Your task to perform on an android device: empty trash in google photos Image 0: 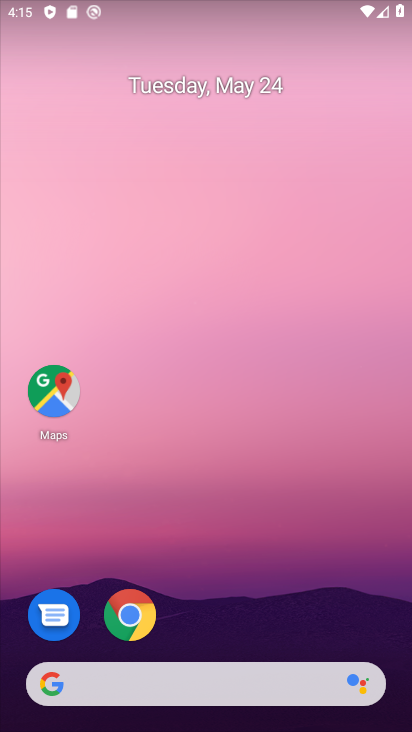
Step 0: drag from (236, 627) to (146, 71)
Your task to perform on an android device: empty trash in google photos Image 1: 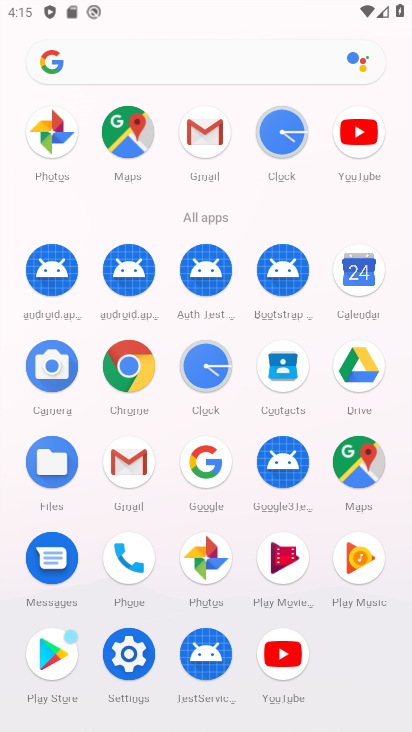
Step 1: click (43, 139)
Your task to perform on an android device: empty trash in google photos Image 2: 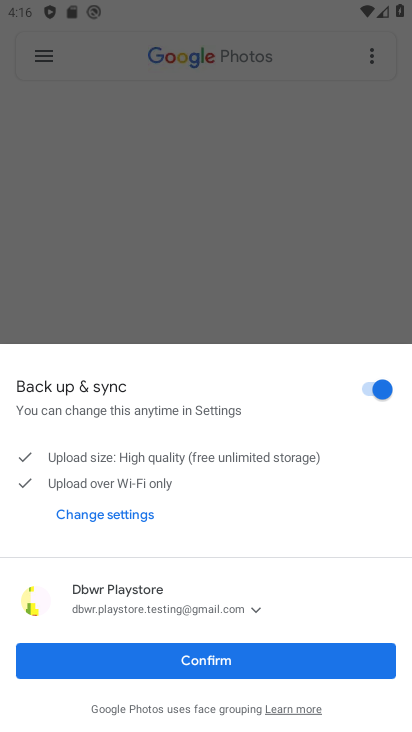
Step 2: click (181, 654)
Your task to perform on an android device: empty trash in google photos Image 3: 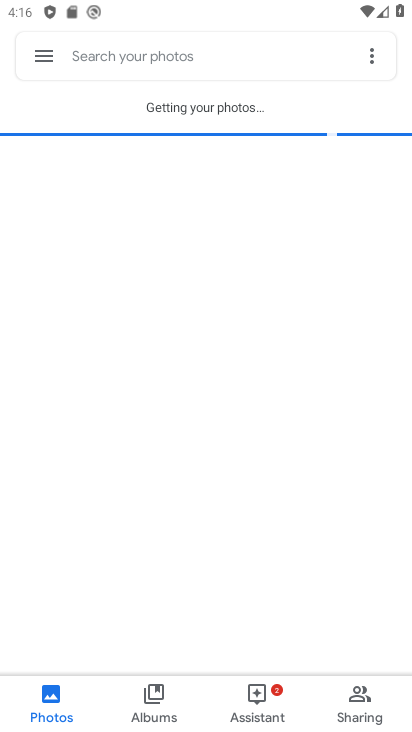
Step 3: click (49, 63)
Your task to perform on an android device: empty trash in google photos Image 4: 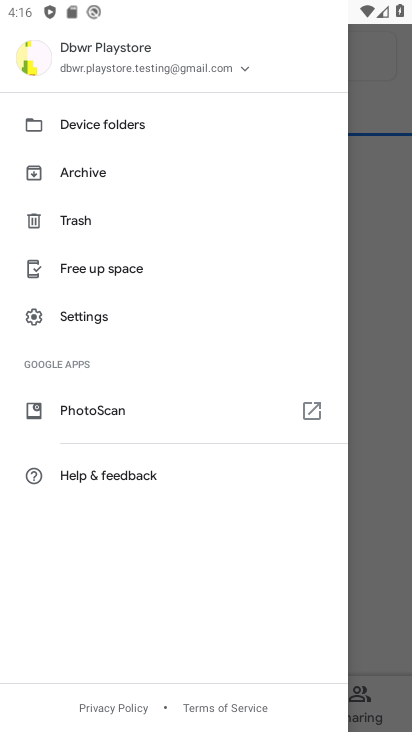
Step 4: click (98, 229)
Your task to perform on an android device: empty trash in google photos Image 5: 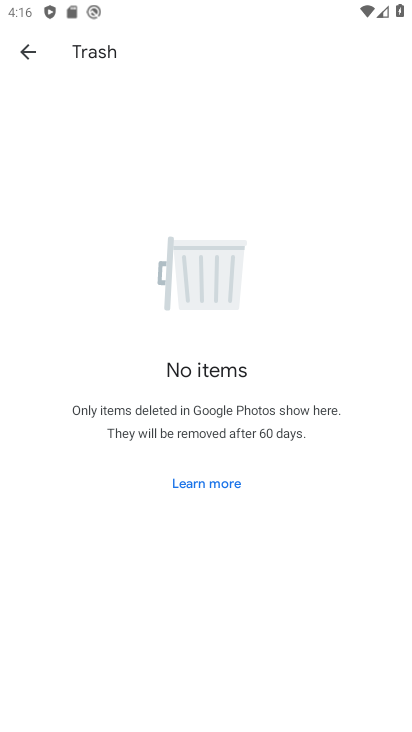
Step 5: task complete